Your task to perform on an android device: turn off wifi Image 0: 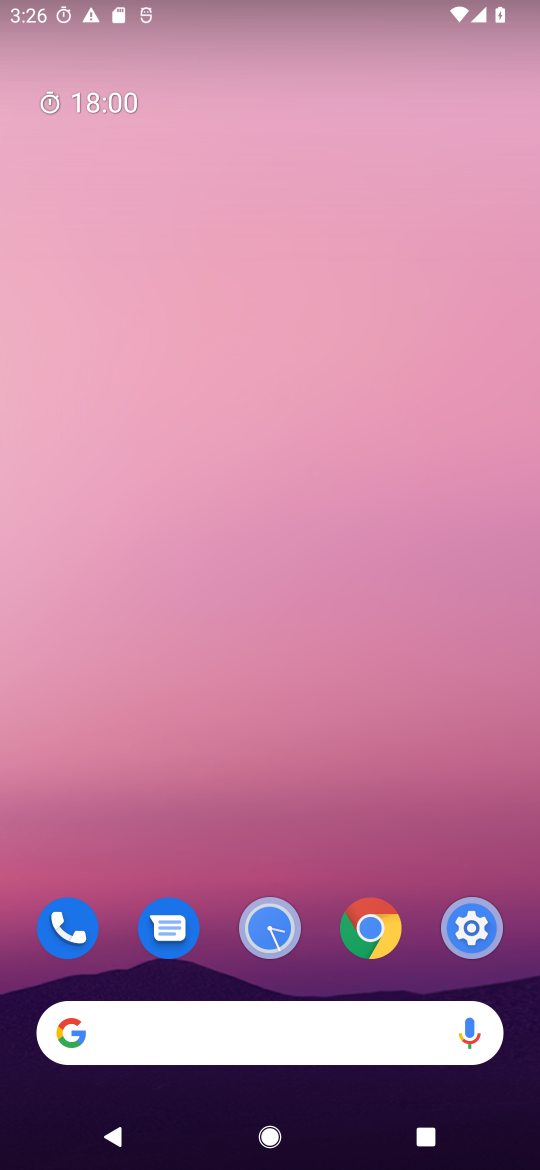
Step 0: click (462, 933)
Your task to perform on an android device: turn off wifi Image 1: 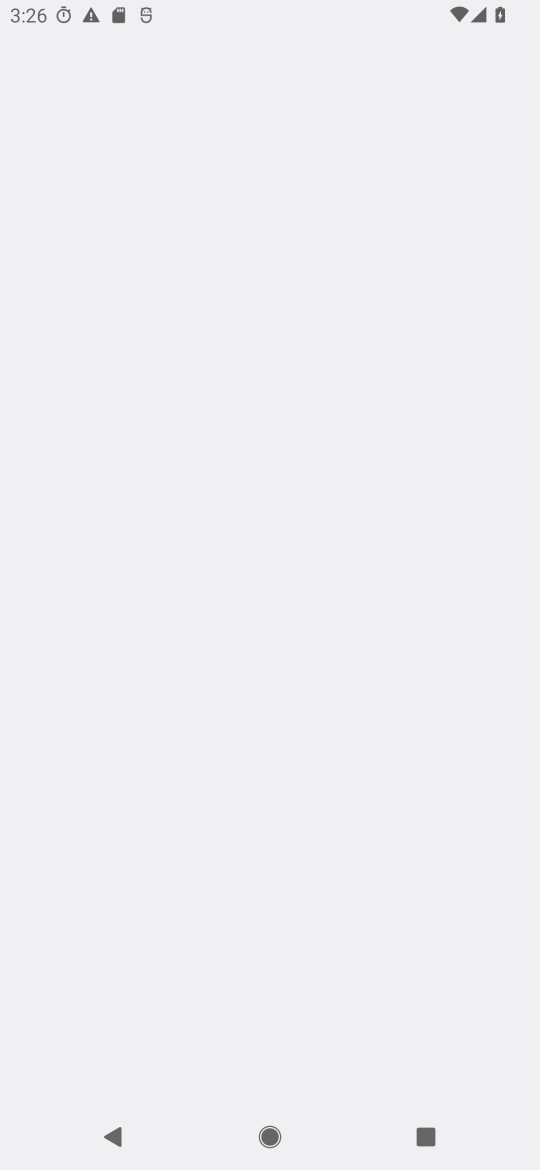
Step 1: drag from (262, 16) to (319, 889)
Your task to perform on an android device: turn off wifi Image 2: 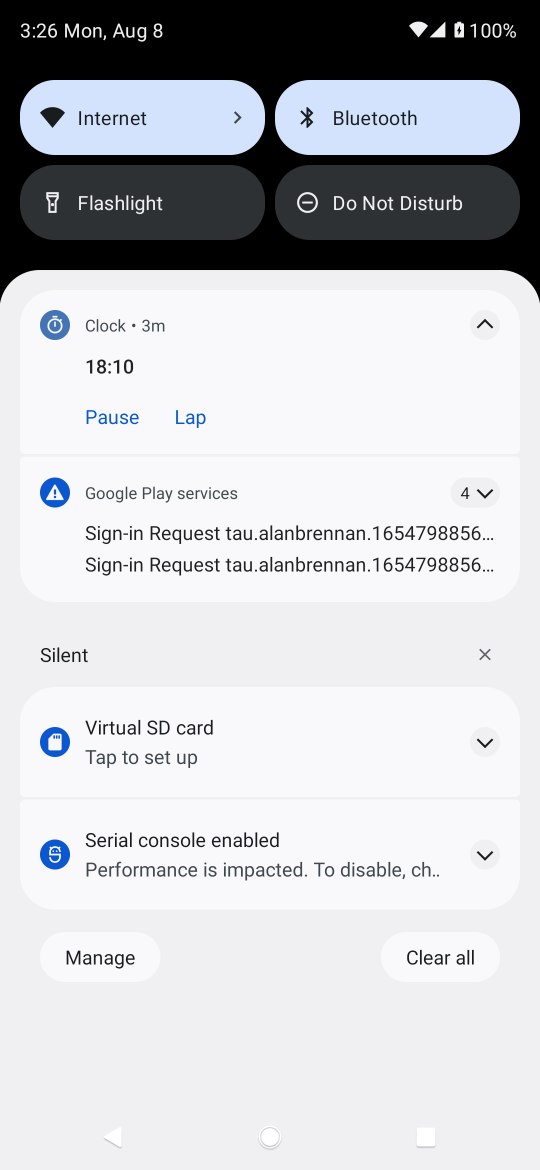
Step 2: click (121, 141)
Your task to perform on an android device: turn off wifi Image 3: 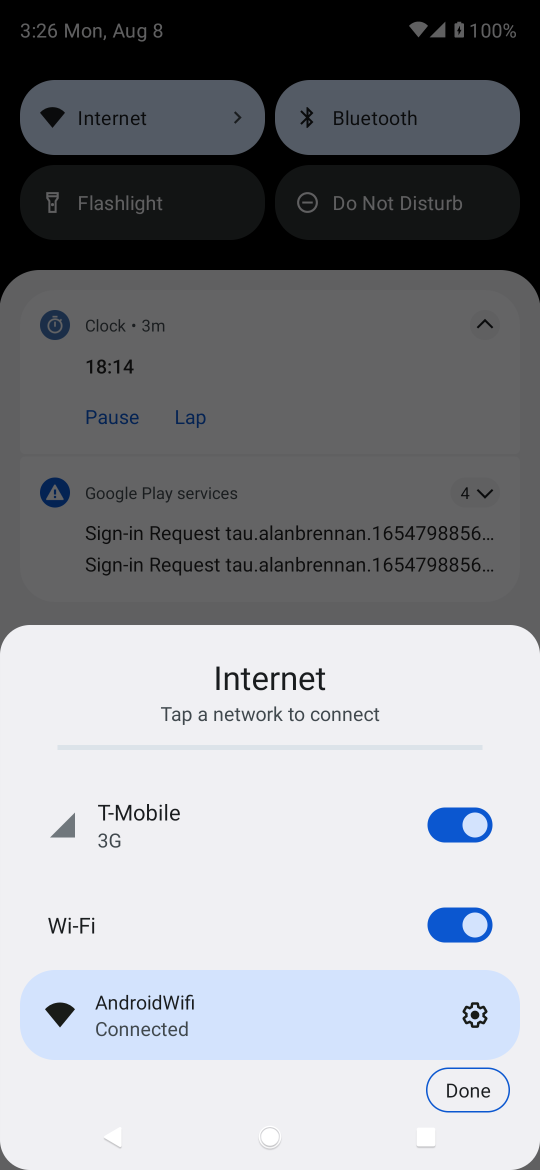
Step 3: click (458, 937)
Your task to perform on an android device: turn off wifi Image 4: 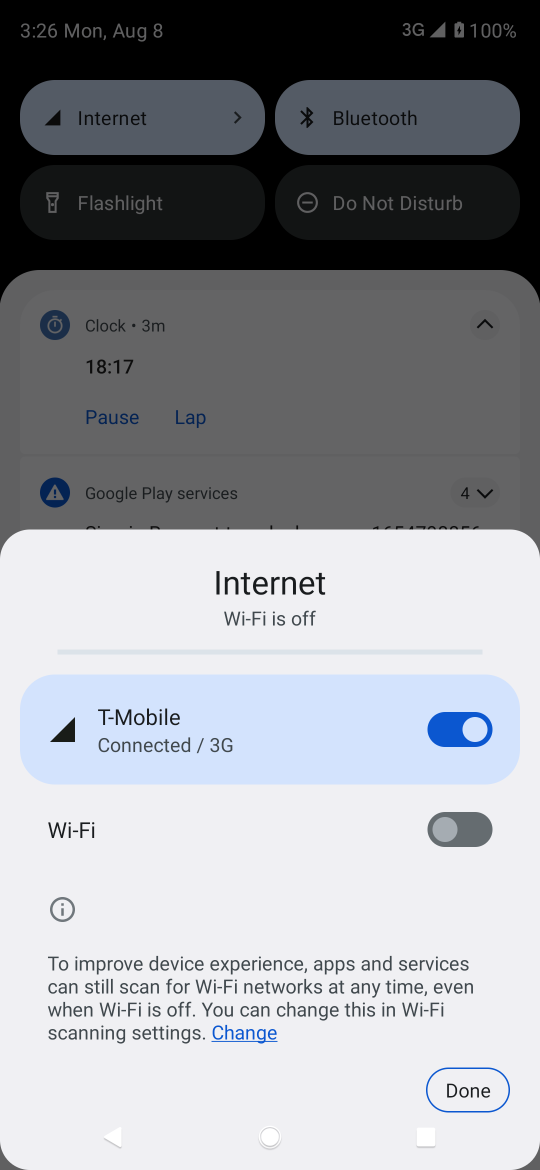
Step 4: task complete